Your task to perform on an android device: turn off airplane mode Image 0: 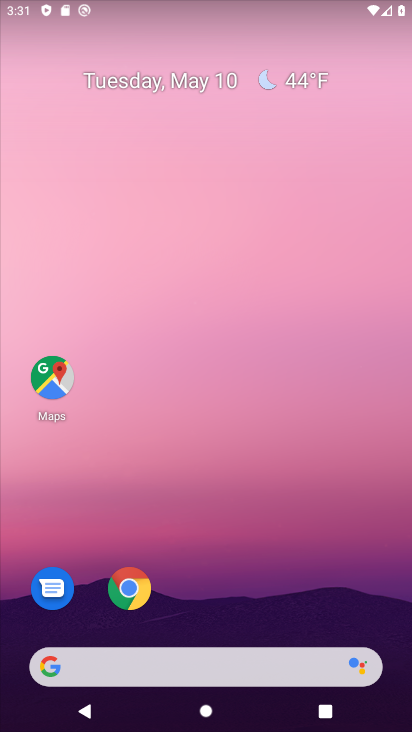
Step 0: drag from (360, 5) to (341, 593)
Your task to perform on an android device: turn off airplane mode Image 1: 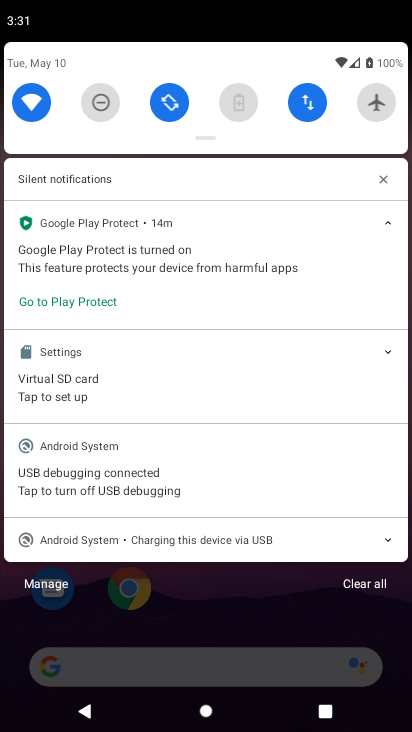
Step 1: task complete